Your task to perform on an android device: Open accessibility settings Image 0: 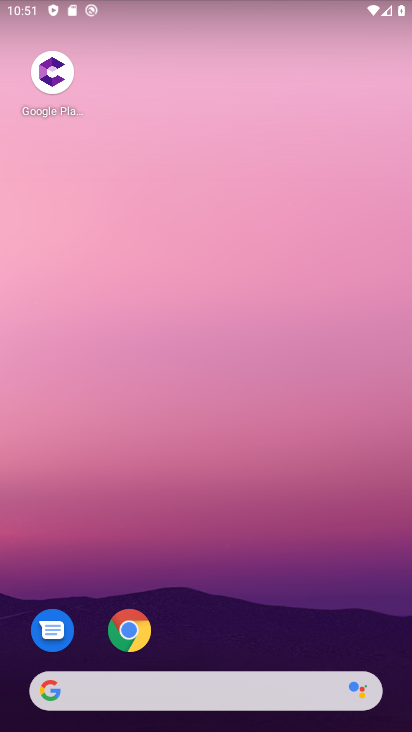
Step 0: drag from (279, 614) to (245, 6)
Your task to perform on an android device: Open accessibility settings Image 1: 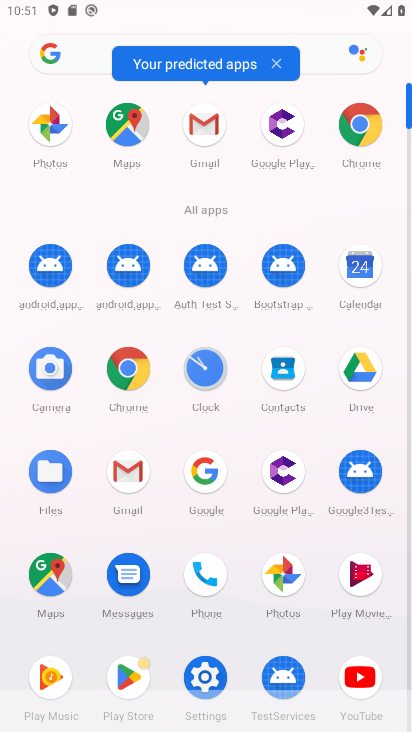
Step 1: click (196, 674)
Your task to perform on an android device: Open accessibility settings Image 2: 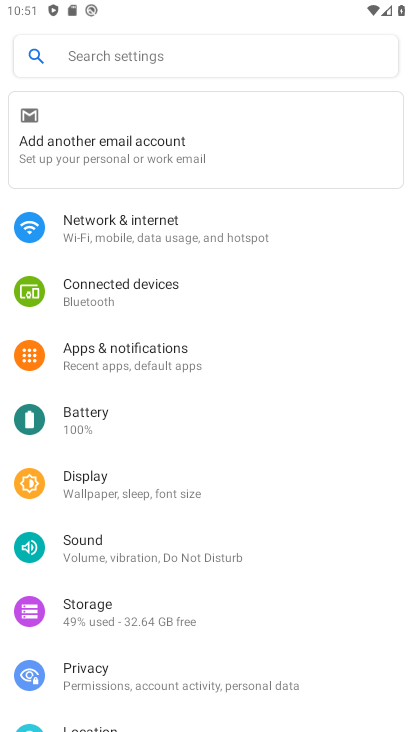
Step 2: drag from (160, 625) to (160, 105)
Your task to perform on an android device: Open accessibility settings Image 3: 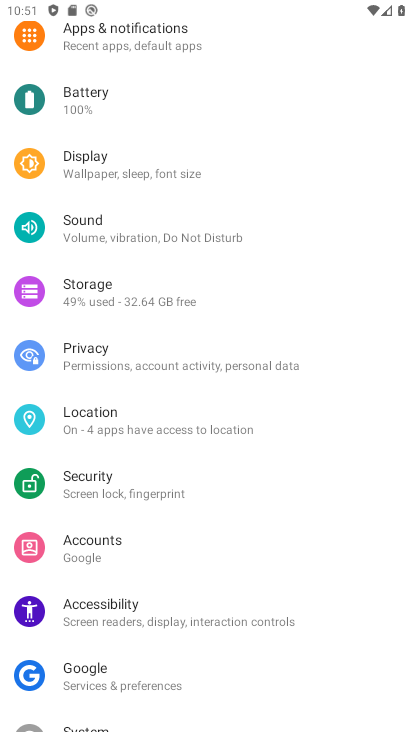
Step 3: click (164, 605)
Your task to perform on an android device: Open accessibility settings Image 4: 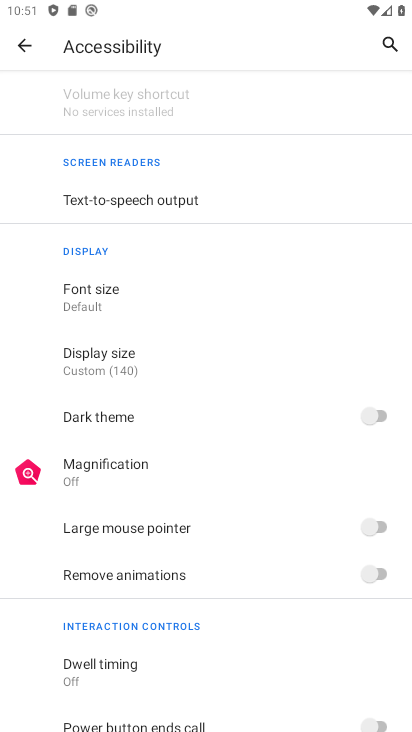
Step 4: task complete